Your task to perform on an android device: install app "Facebook" Image 0: 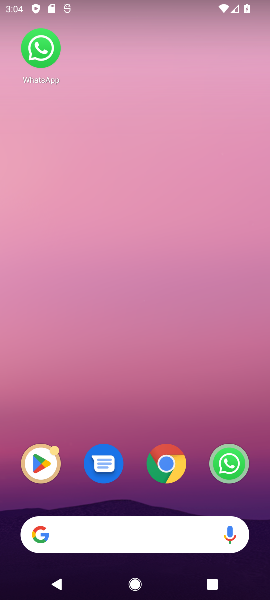
Step 0: drag from (161, 294) to (134, 128)
Your task to perform on an android device: install app "Facebook" Image 1: 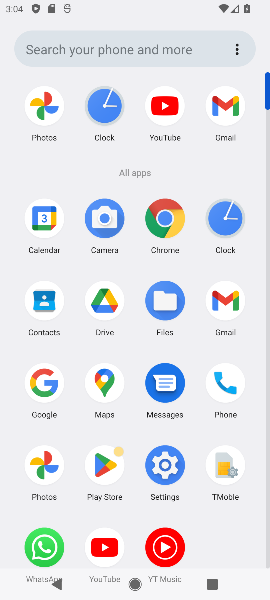
Step 1: click (106, 472)
Your task to perform on an android device: install app "Facebook" Image 2: 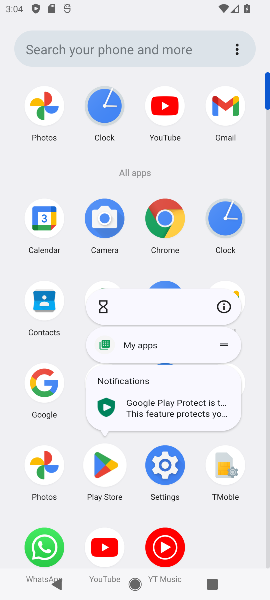
Step 2: click (106, 472)
Your task to perform on an android device: install app "Facebook" Image 3: 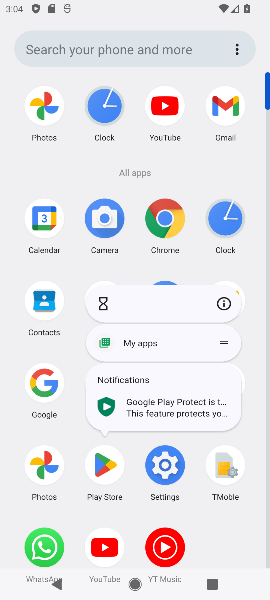
Step 3: click (106, 472)
Your task to perform on an android device: install app "Facebook" Image 4: 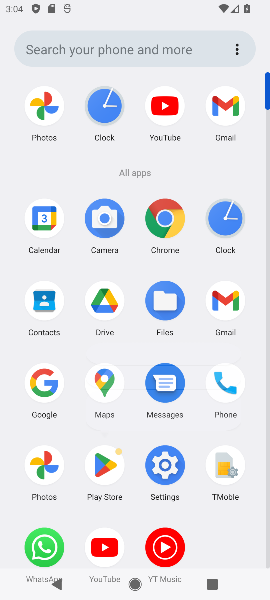
Step 4: click (106, 472)
Your task to perform on an android device: install app "Facebook" Image 5: 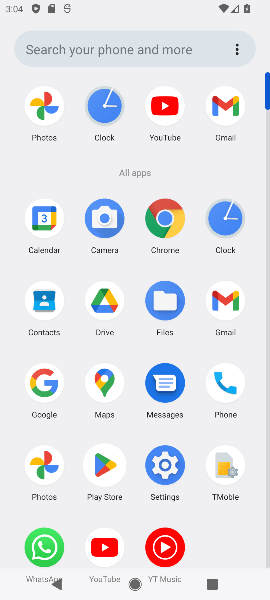
Step 5: click (106, 472)
Your task to perform on an android device: install app "Facebook" Image 6: 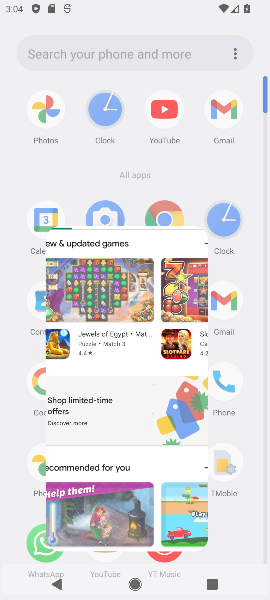
Step 6: click (106, 472)
Your task to perform on an android device: install app "Facebook" Image 7: 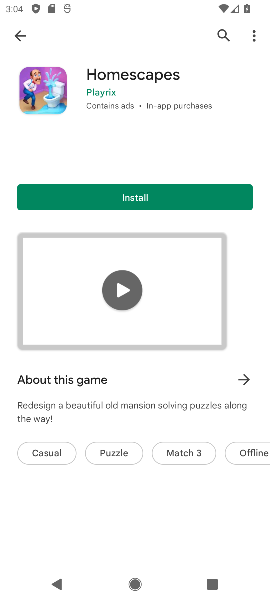
Step 7: click (106, 471)
Your task to perform on an android device: install app "Facebook" Image 8: 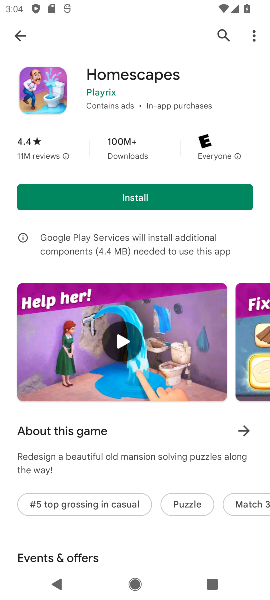
Step 8: click (18, 37)
Your task to perform on an android device: install app "Facebook" Image 9: 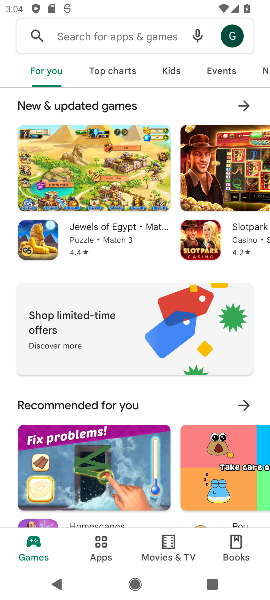
Step 9: click (77, 32)
Your task to perform on an android device: install app "Facebook" Image 10: 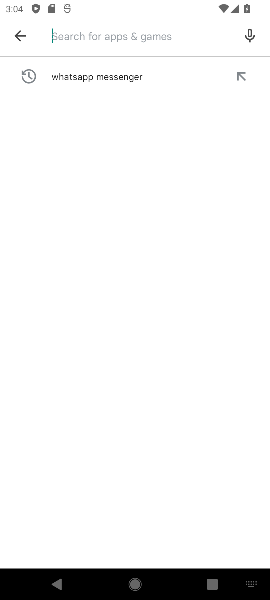
Step 10: click (72, 33)
Your task to perform on an android device: install app "Facebook" Image 11: 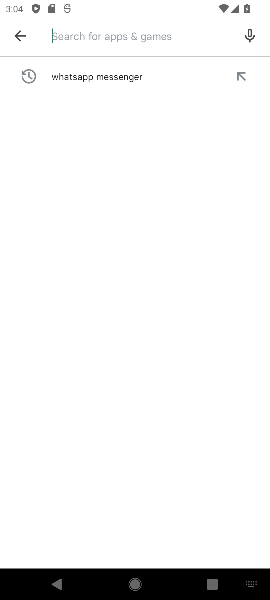
Step 11: type "facebook"
Your task to perform on an android device: install app "Facebook" Image 12: 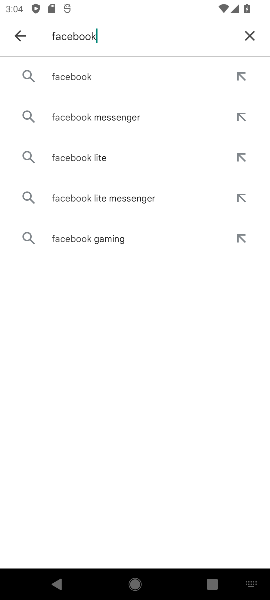
Step 12: click (80, 69)
Your task to perform on an android device: install app "Facebook" Image 13: 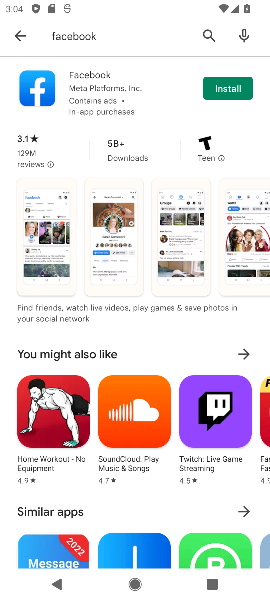
Step 13: click (225, 91)
Your task to perform on an android device: install app "Facebook" Image 14: 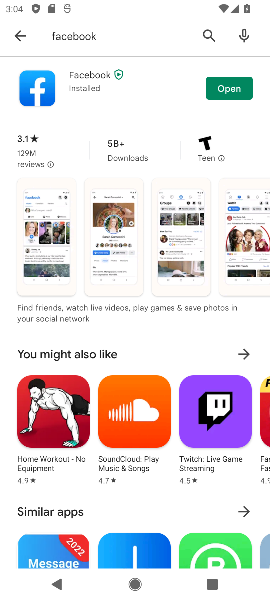
Step 14: click (227, 87)
Your task to perform on an android device: install app "Facebook" Image 15: 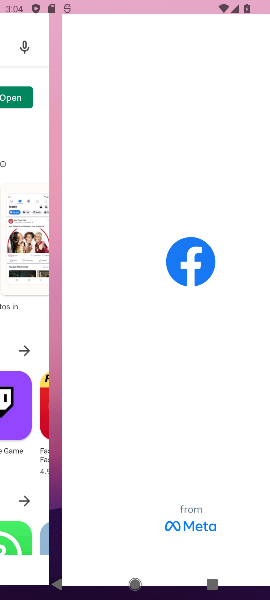
Step 15: task complete